Your task to perform on an android device: What's on my calendar today? Image 0: 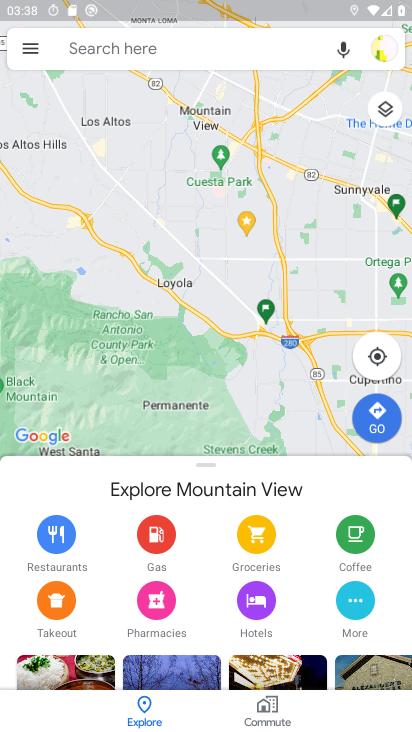
Step 0: press home button
Your task to perform on an android device: What's on my calendar today? Image 1: 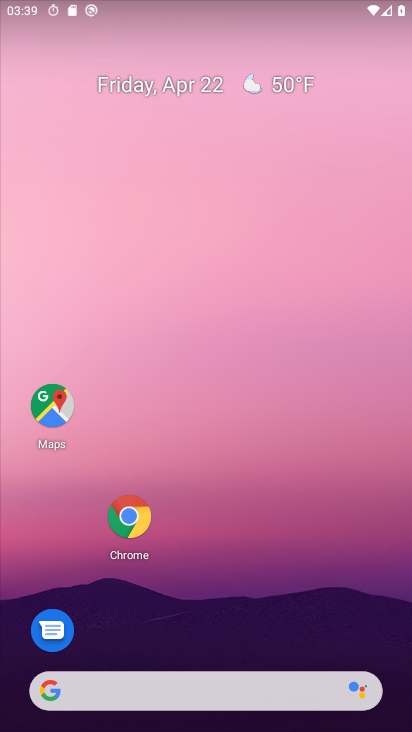
Step 1: drag from (298, 274) to (275, 186)
Your task to perform on an android device: What's on my calendar today? Image 2: 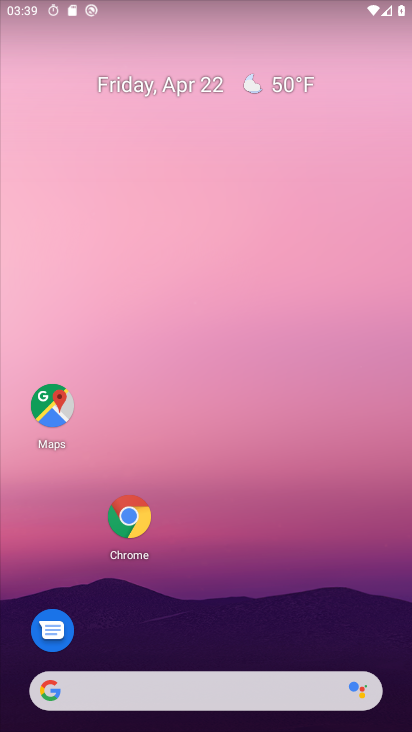
Step 2: drag from (380, 482) to (352, 237)
Your task to perform on an android device: What's on my calendar today? Image 3: 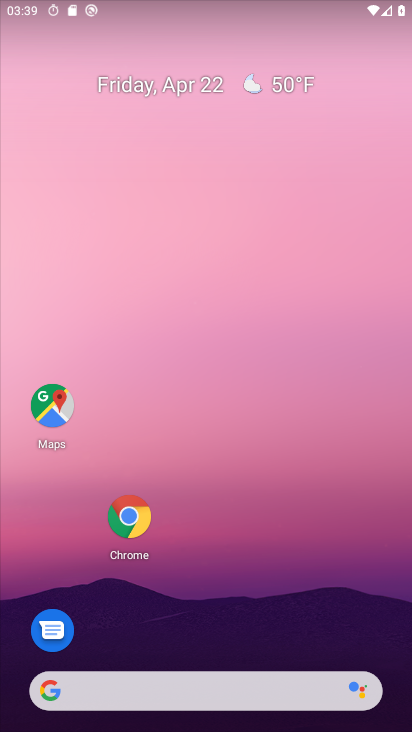
Step 3: drag from (309, 236) to (266, 15)
Your task to perform on an android device: What's on my calendar today? Image 4: 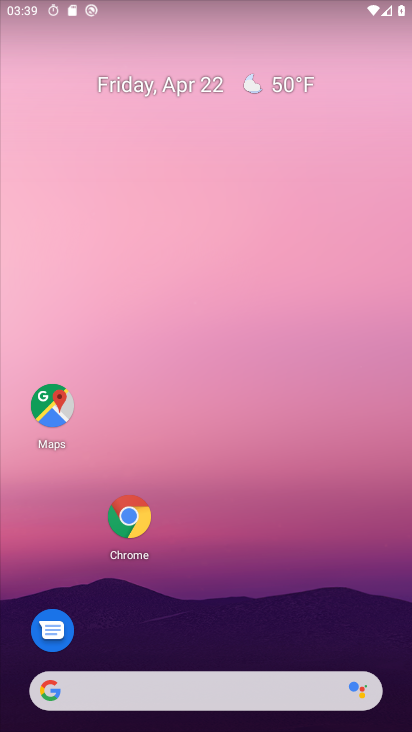
Step 4: drag from (382, 641) to (295, 147)
Your task to perform on an android device: What's on my calendar today? Image 5: 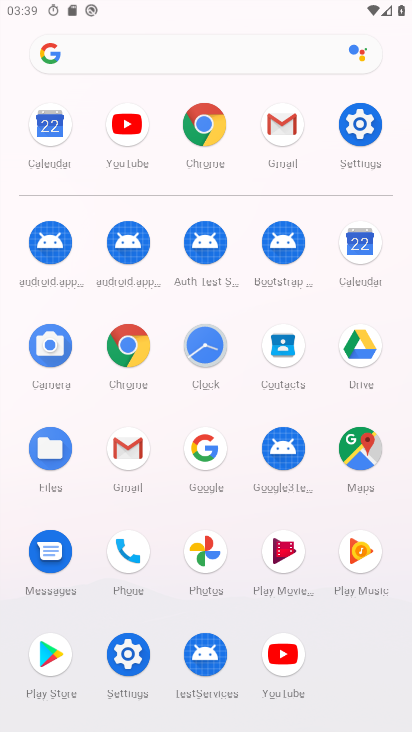
Step 5: click (371, 226)
Your task to perform on an android device: What's on my calendar today? Image 6: 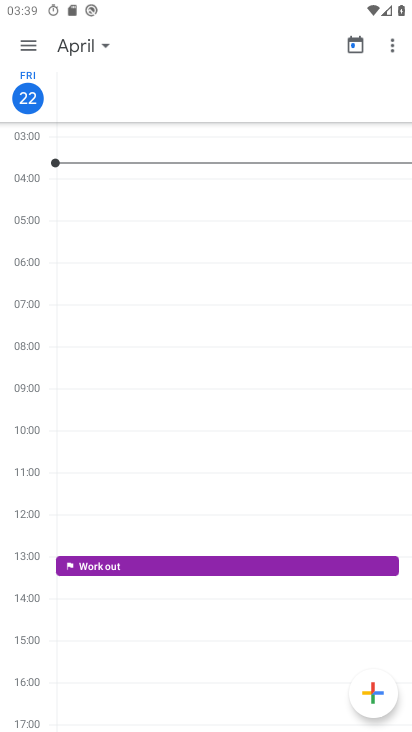
Step 6: click (101, 45)
Your task to perform on an android device: What's on my calendar today? Image 7: 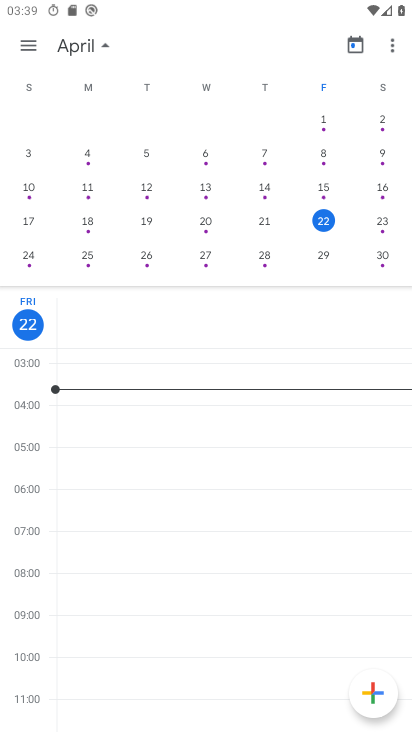
Step 7: click (316, 224)
Your task to perform on an android device: What's on my calendar today? Image 8: 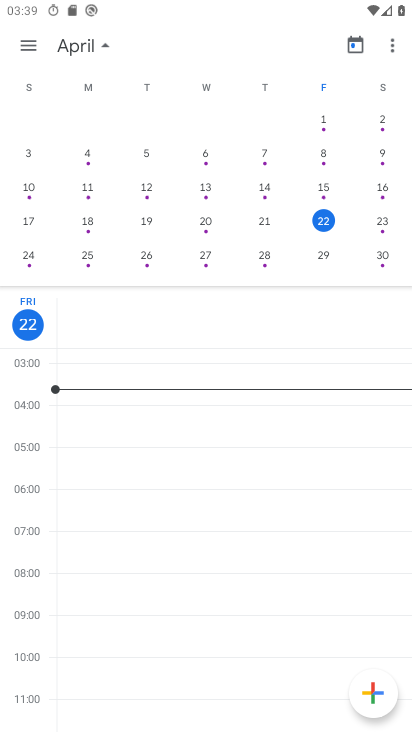
Step 8: task complete